Your task to perform on an android device: Is it going to rain this weekend? Image 0: 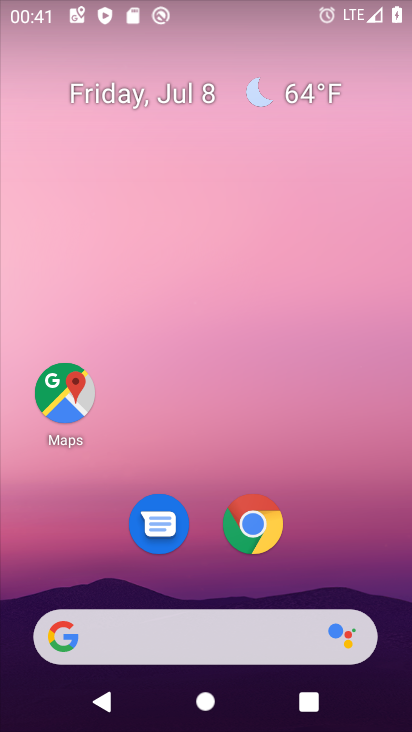
Step 0: click (304, 83)
Your task to perform on an android device: Is it going to rain this weekend? Image 1: 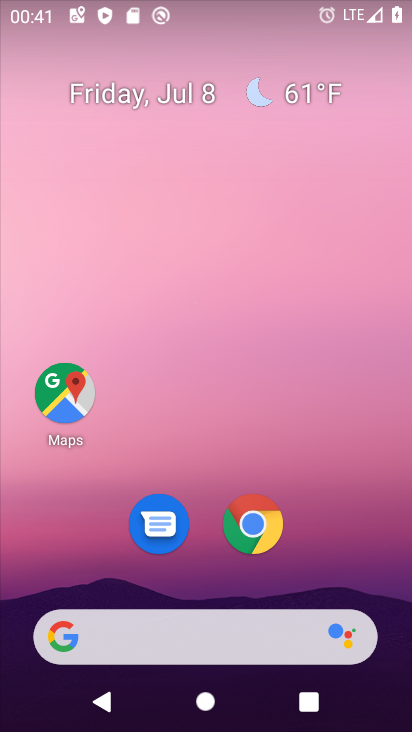
Step 1: click (298, 93)
Your task to perform on an android device: Is it going to rain this weekend? Image 2: 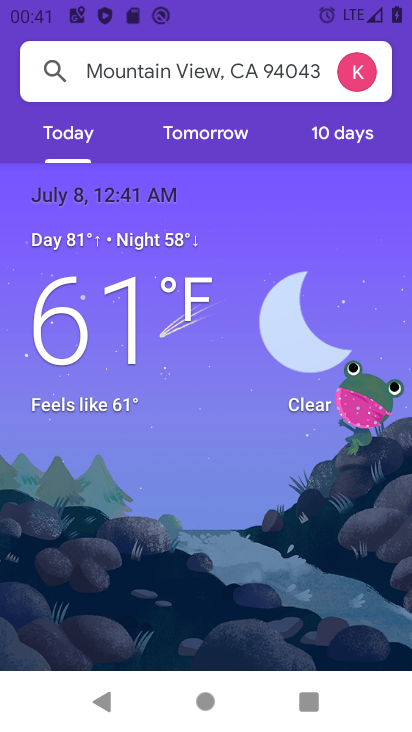
Step 2: click (338, 122)
Your task to perform on an android device: Is it going to rain this weekend? Image 3: 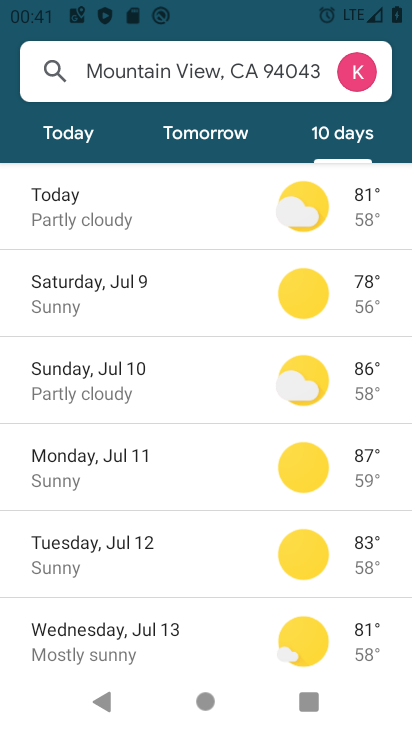
Step 3: click (97, 303)
Your task to perform on an android device: Is it going to rain this weekend? Image 4: 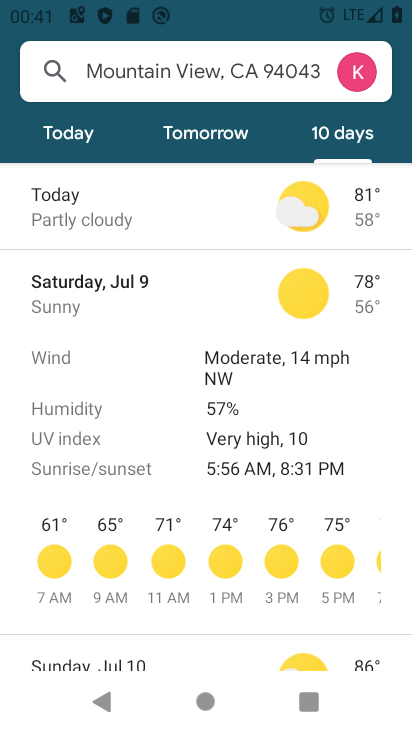
Step 4: task complete